Your task to perform on an android device: Go to Android settings Image 0: 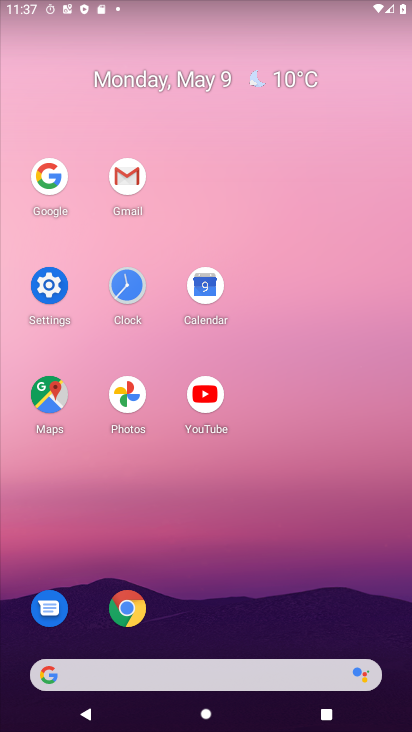
Step 0: click (53, 290)
Your task to perform on an android device: Go to Android settings Image 1: 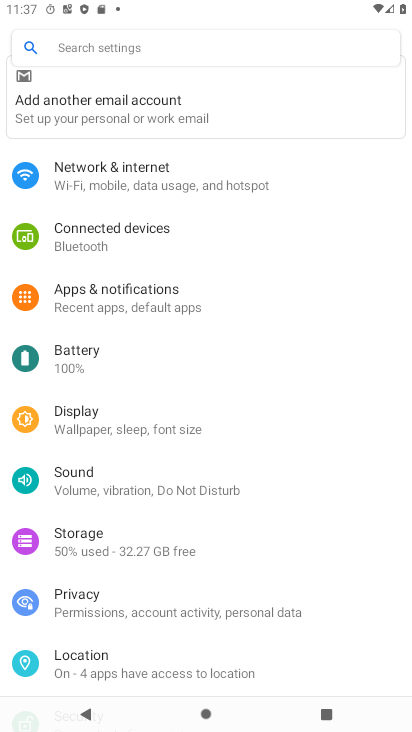
Step 1: task complete